Your task to perform on an android device: Open the phone app and click the voicemail tab. Image 0: 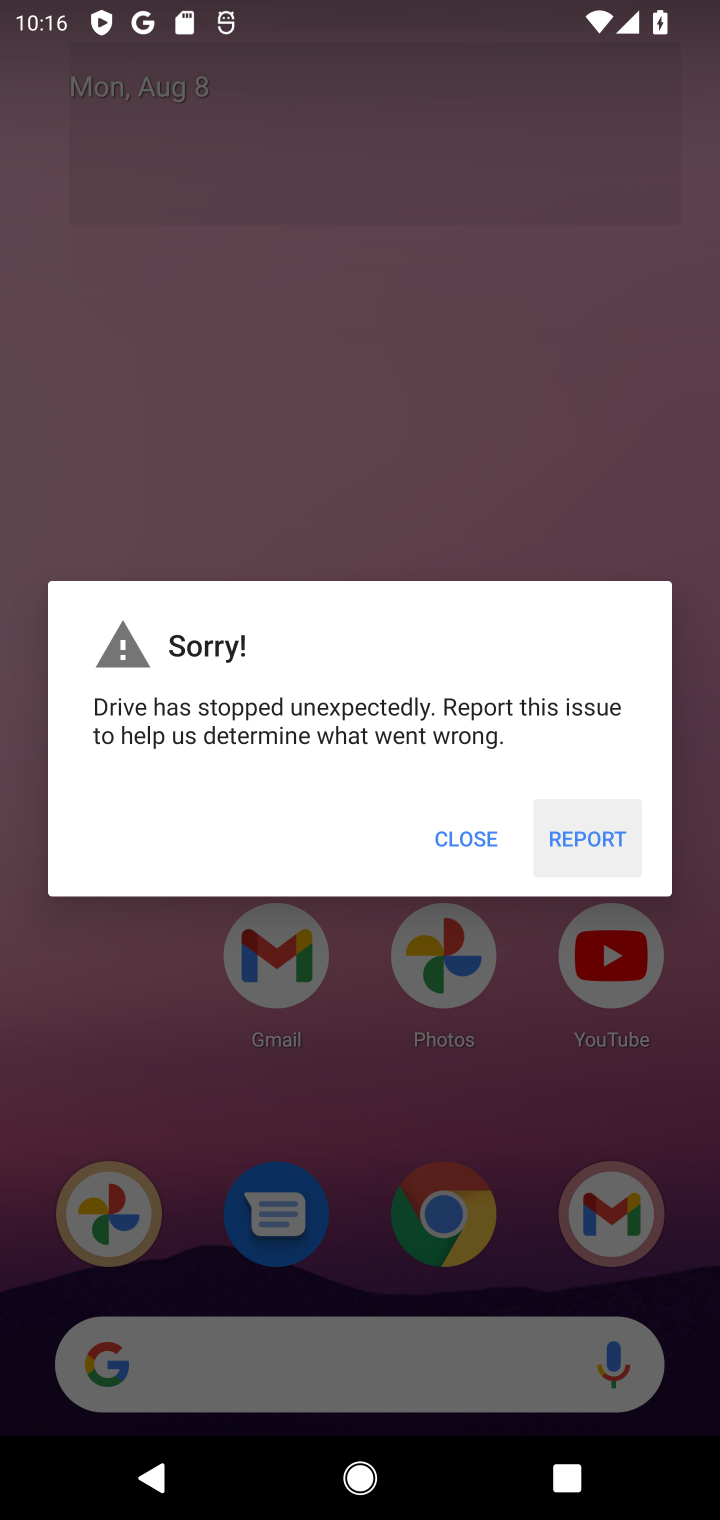
Step 0: press home button
Your task to perform on an android device: Open the phone app and click the voicemail tab. Image 1: 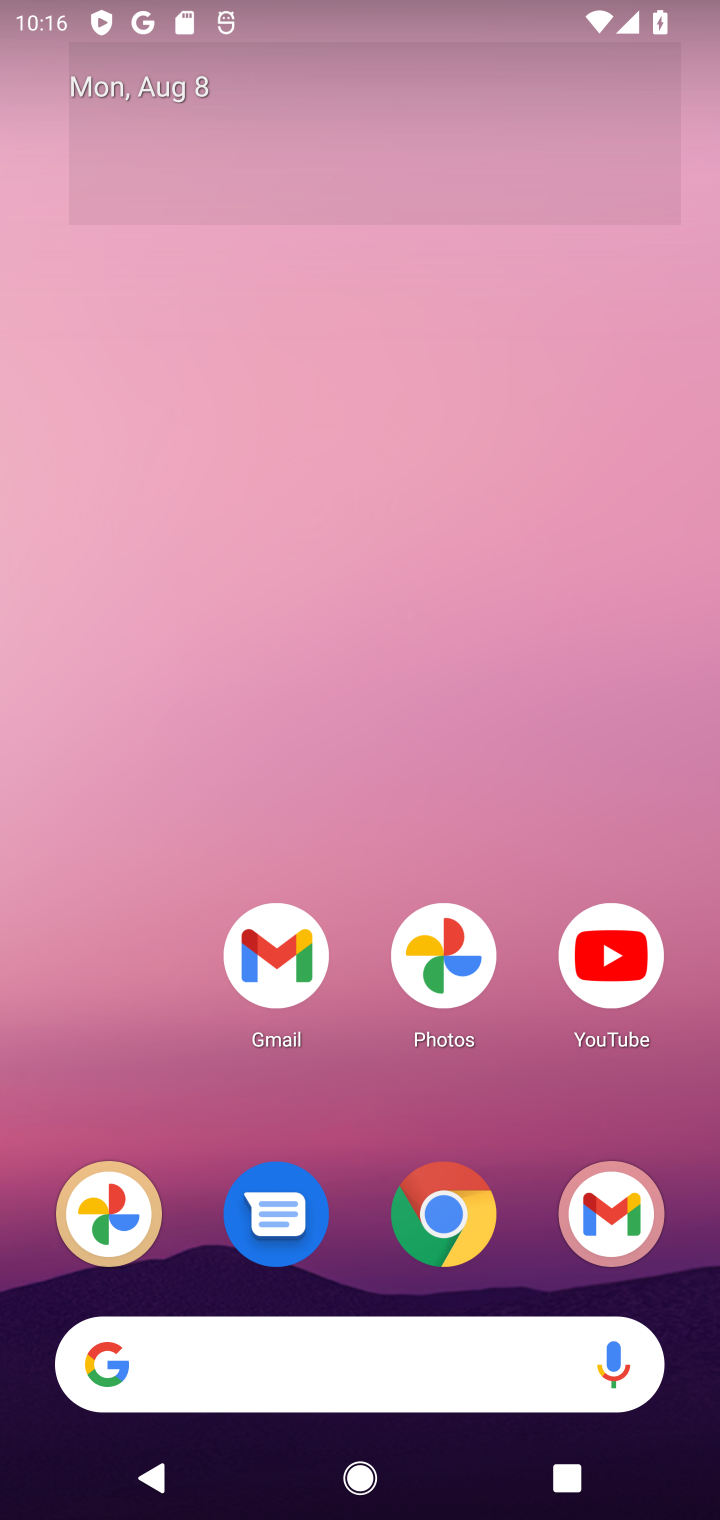
Step 1: drag from (62, 1467) to (499, 490)
Your task to perform on an android device: Open the phone app and click the voicemail tab. Image 2: 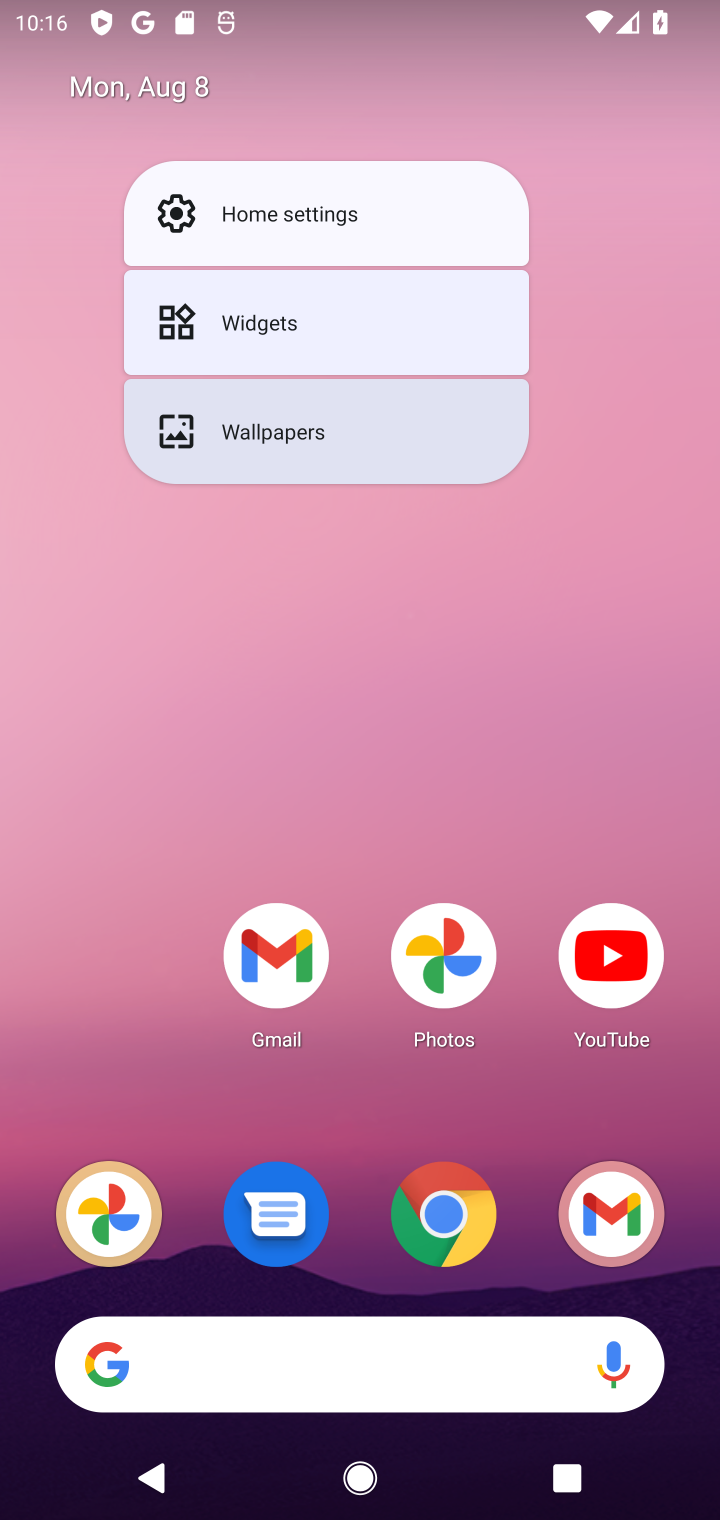
Step 2: drag from (64, 1465) to (488, 354)
Your task to perform on an android device: Open the phone app and click the voicemail tab. Image 3: 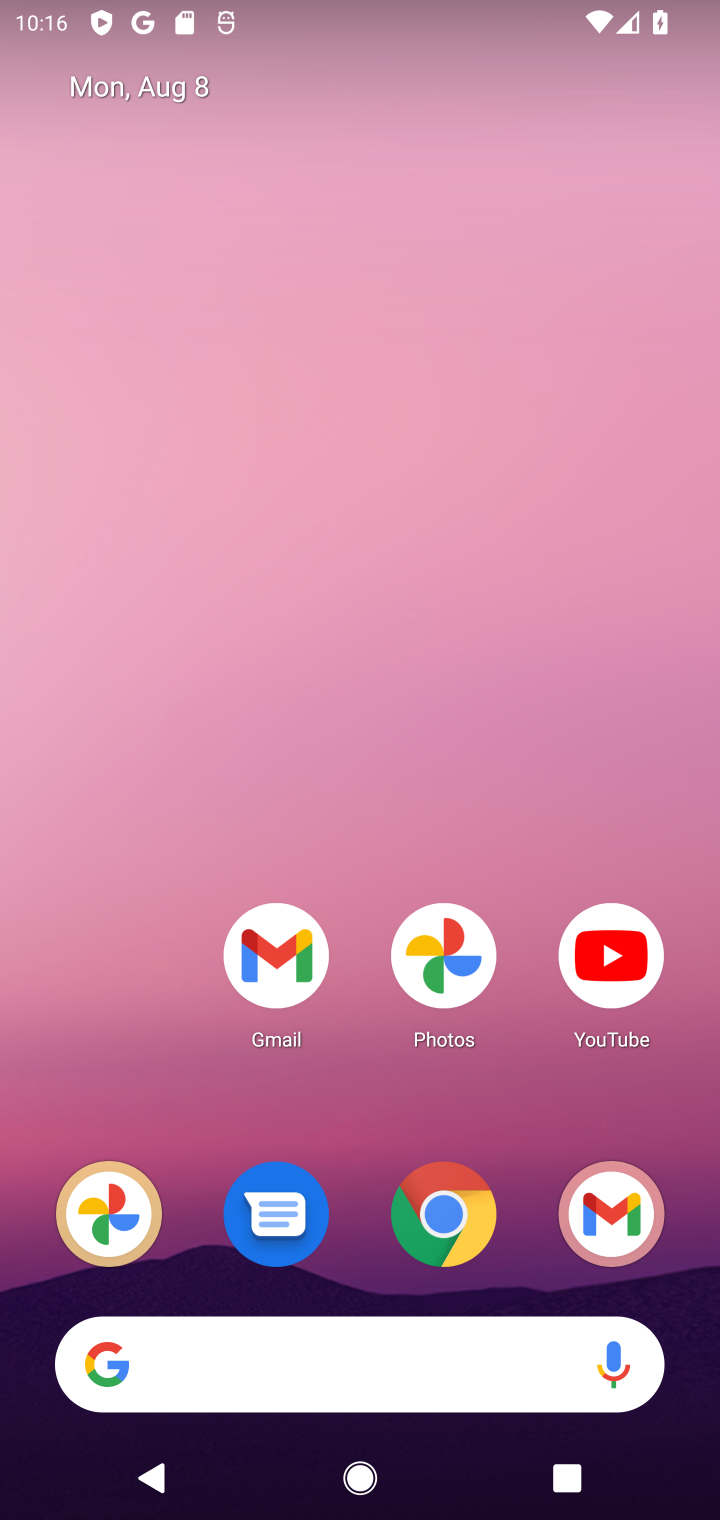
Step 3: drag from (306, 713) to (428, 354)
Your task to perform on an android device: Open the phone app and click the voicemail tab. Image 4: 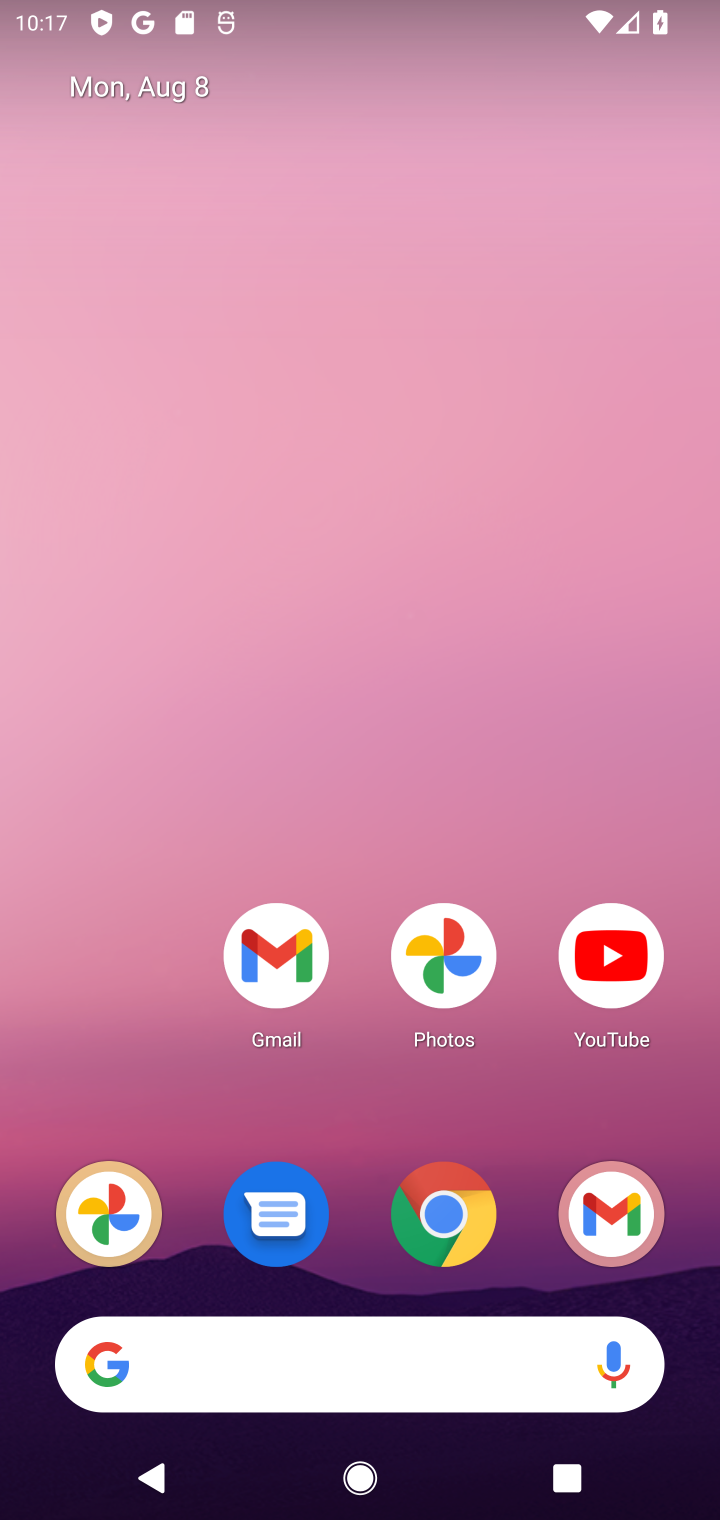
Step 4: drag from (38, 1389) to (522, 523)
Your task to perform on an android device: Open the phone app and click the voicemail tab. Image 5: 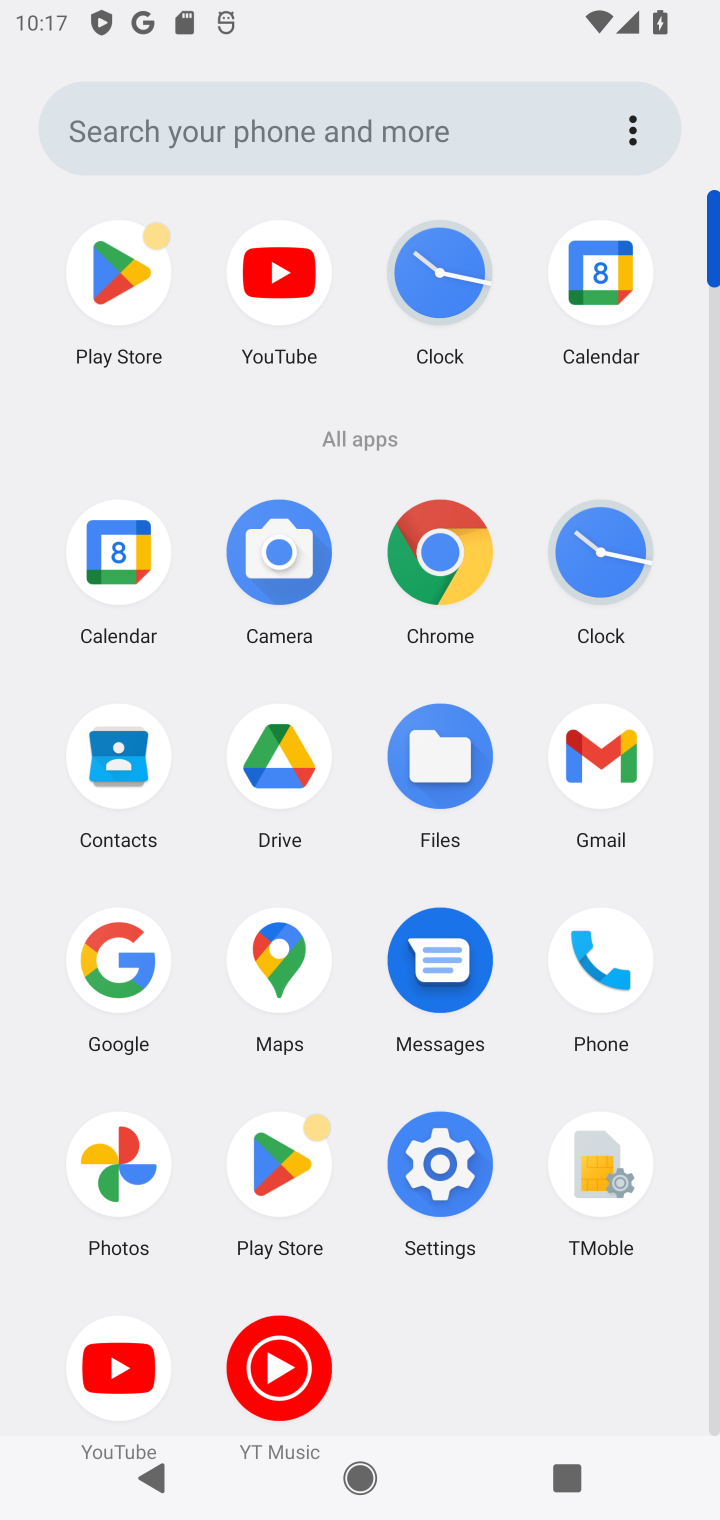
Step 5: click (627, 966)
Your task to perform on an android device: Open the phone app and click the voicemail tab. Image 6: 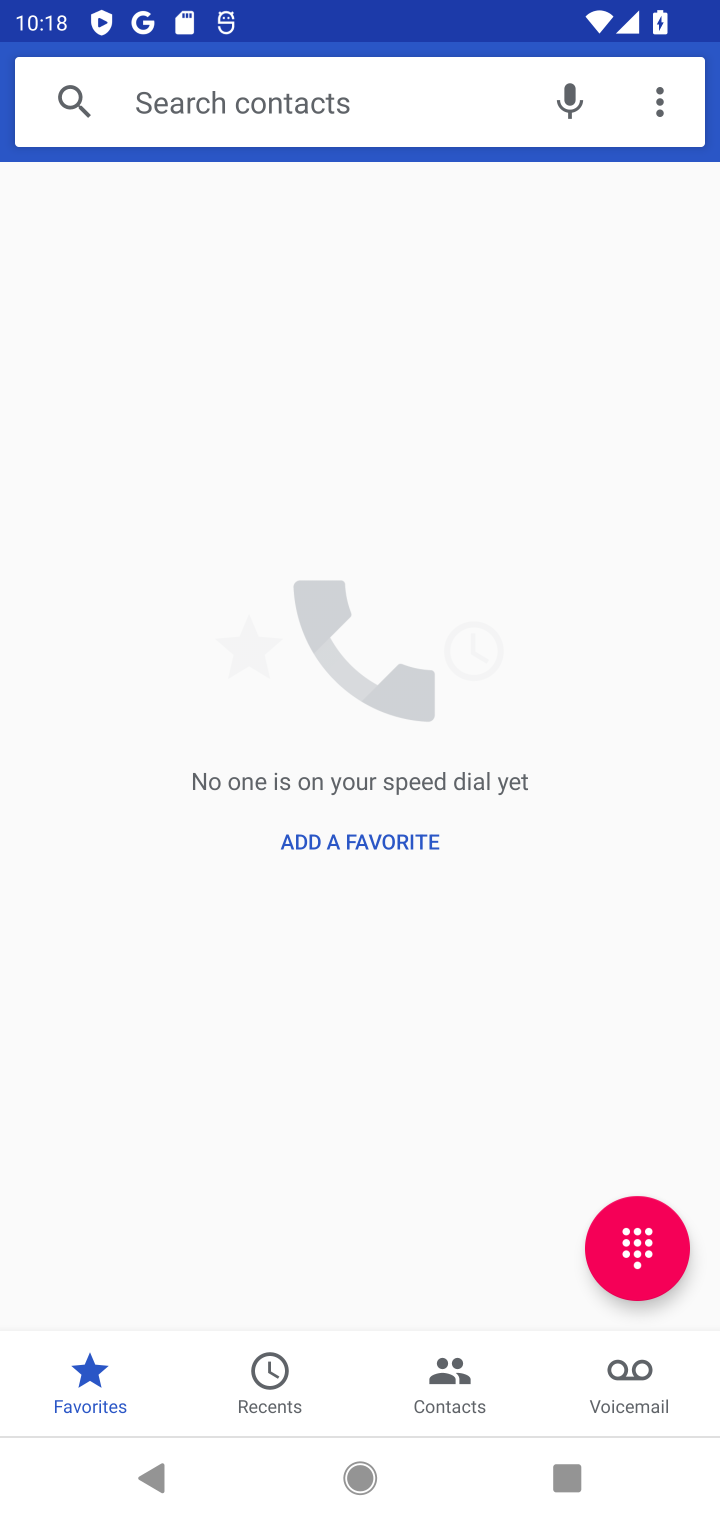
Step 6: click (636, 1370)
Your task to perform on an android device: Open the phone app and click the voicemail tab. Image 7: 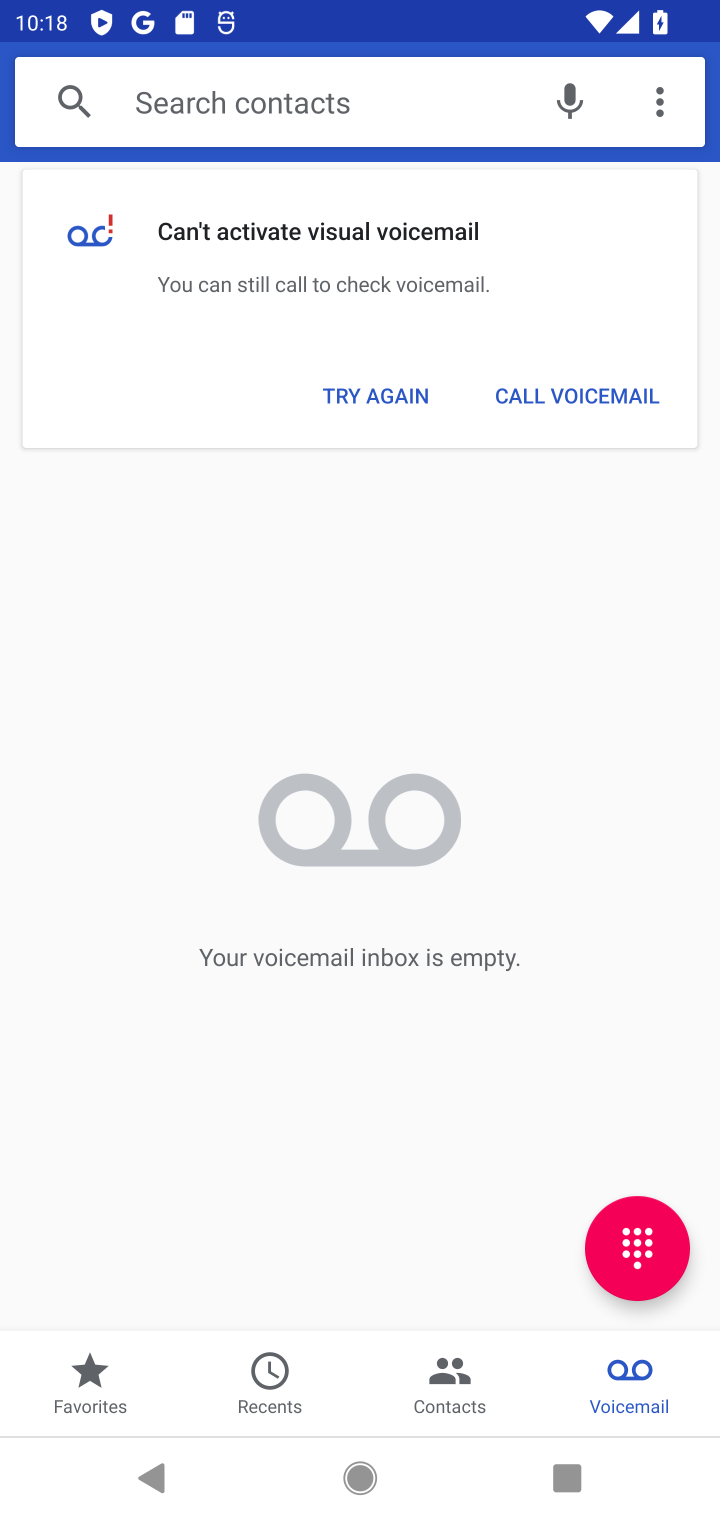
Step 7: task complete